Your task to perform on an android device: Open Chrome and go to the settings page Image 0: 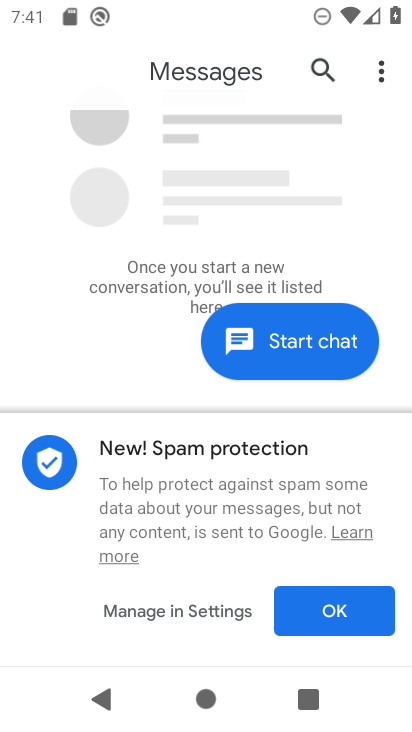
Step 0: press home button
Your task to perform on an android device: Open Chrome and go to the settings page Image 1: 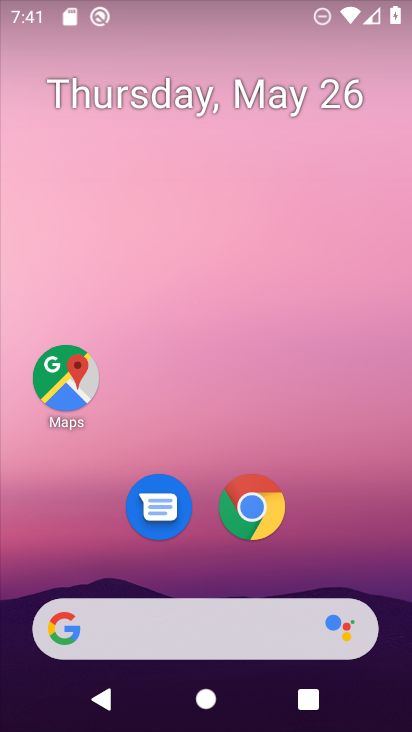
Step 1: click (250, 507)
Your task to perform on an android device: Open Chrome and go to the settings page Image 2: 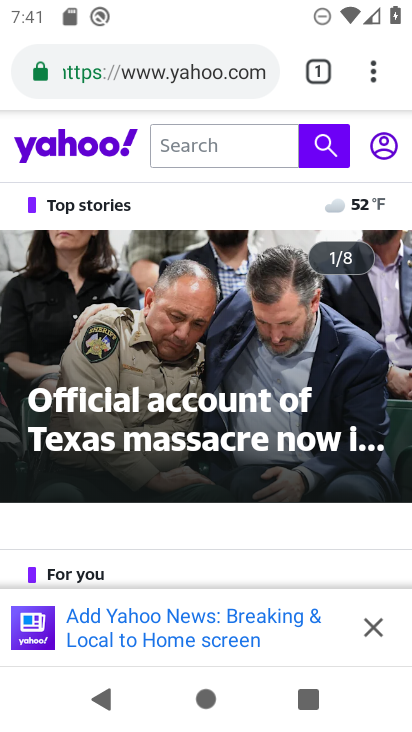
Step 2: click (374, 78)
Your task to perform on an android device: Open Chrome and go to the settings page Image 3: 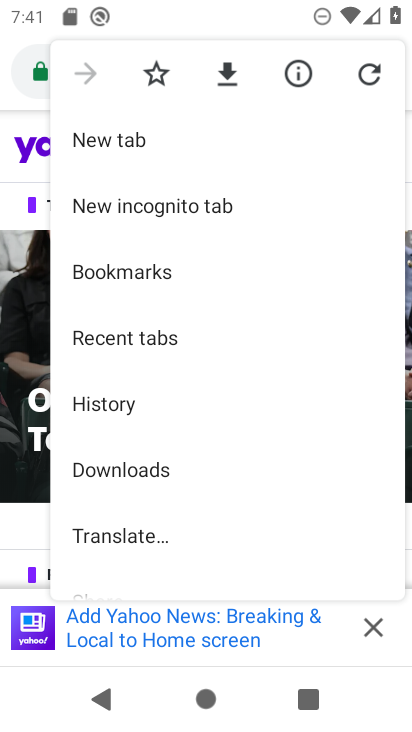
Step 3: drag from (171, 485) to (173, 140)
Your task to perform on an android device: Open Chrome and go to the settings page Image 4: 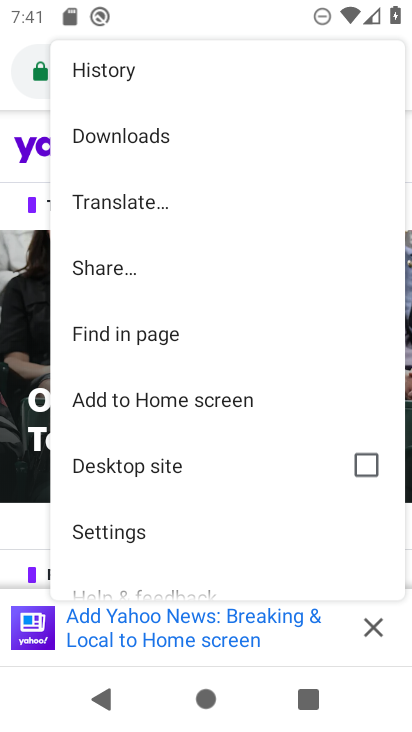
Step 4: click (116, 546)
Your task to perform on an android device: Open Chrome and go to the settings page Image 5: 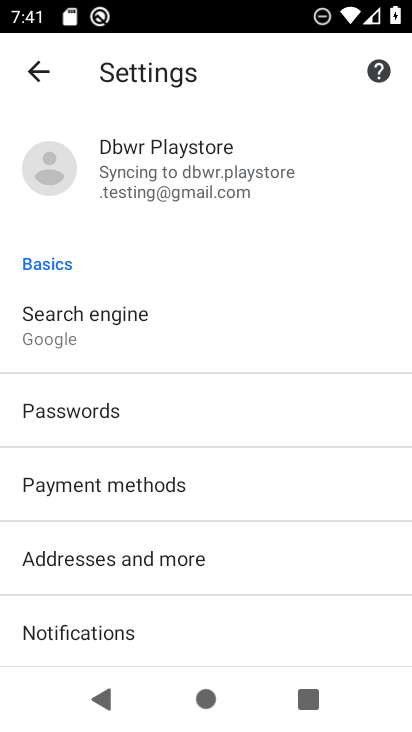
Step 5: task complete